Your task to perform on an android device: manage bookmarks in the chrome app Image 0: 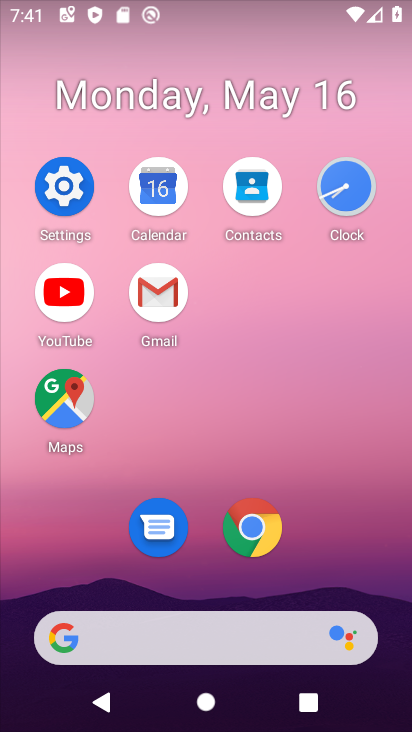
Step 0: click (262, 536)
Your task to perform on an android device: manage bookmarks in the chrome app Image 1: 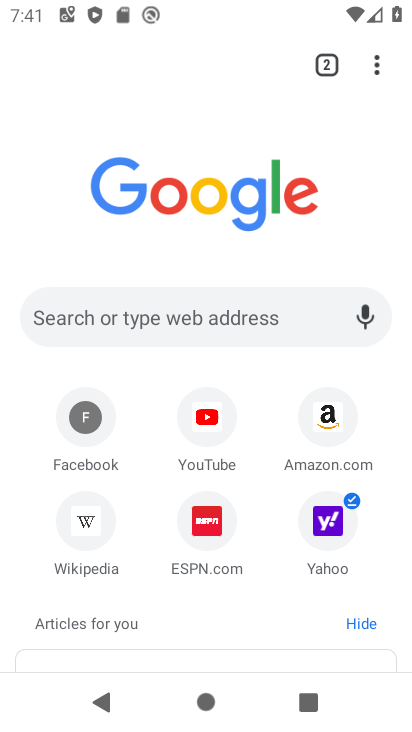
Step 1: click (383, 59)
Your task to perform on an android device: manage bookmarks in the chrome app Image 2: 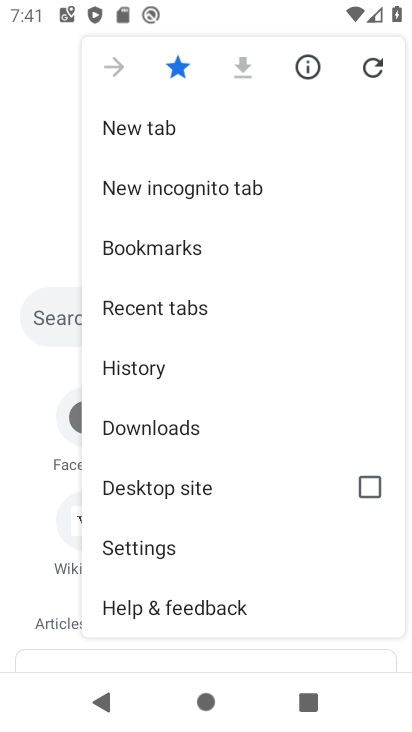
Step 2: click (210, 257)
Your task to perform on an android device: manage bookmarks in the chrome app Image 3: 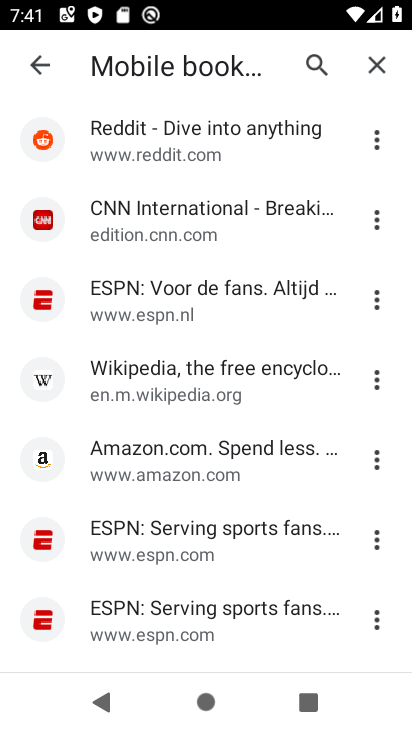
Step 3: click (383, 132)
Your task to perform on an android device: manage bookmarks in the chrome app Image 4: 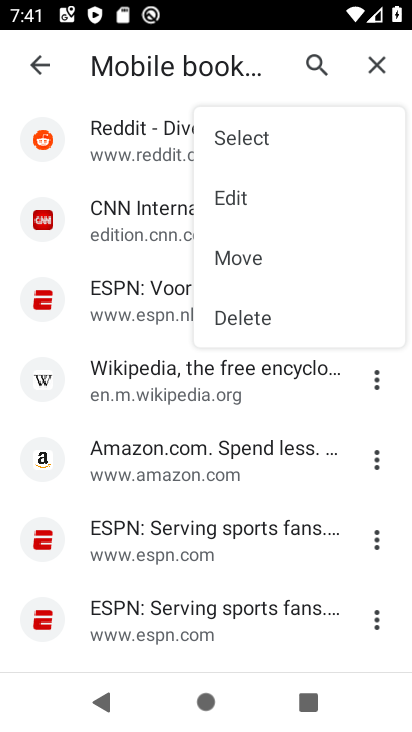
Step 4: click (271, 315)
Your task to perform on an android device: manage bookmarks in the chrome app Image 5: 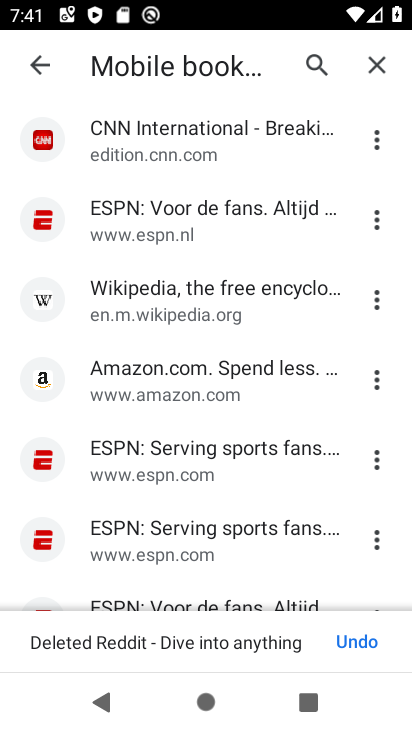
Step 5: task complete